Your task to perform on an android device: uninstall "Nova Launcher" Image 0: 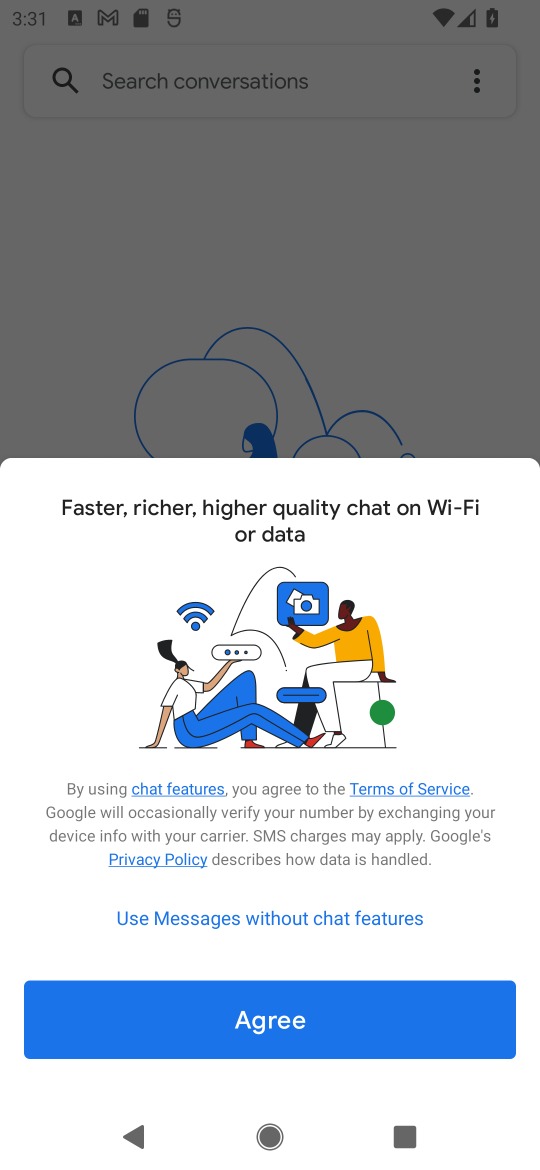
Step 0: press home button
Your task to perform on an android device: uninstall "Nova Launcher" Image 1: 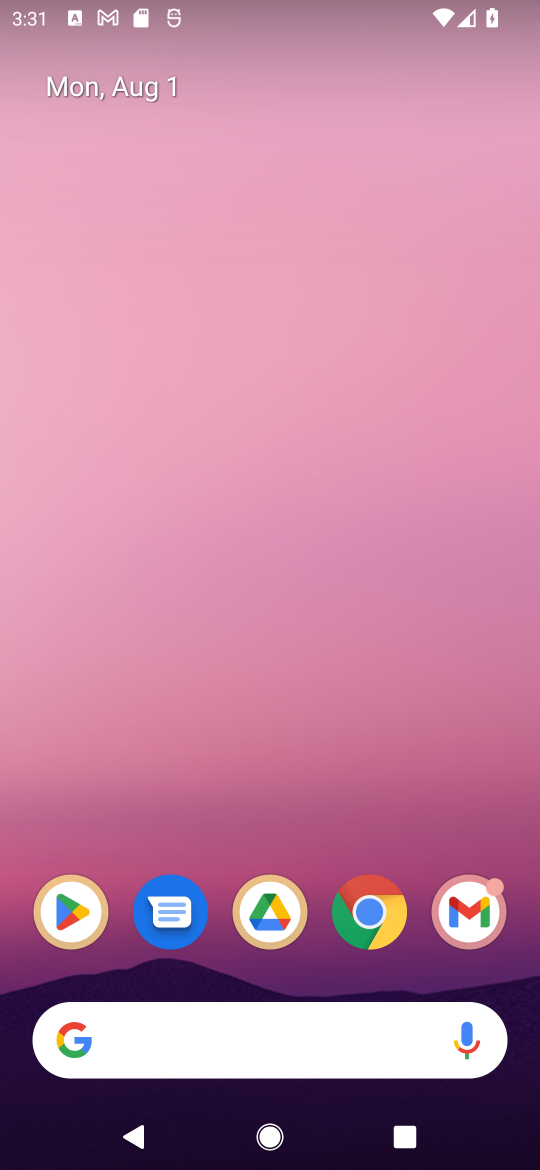
Step 1: click (62, 917)
Your task to perform on an android device: uninstall "Nova Launcher" Image 2: 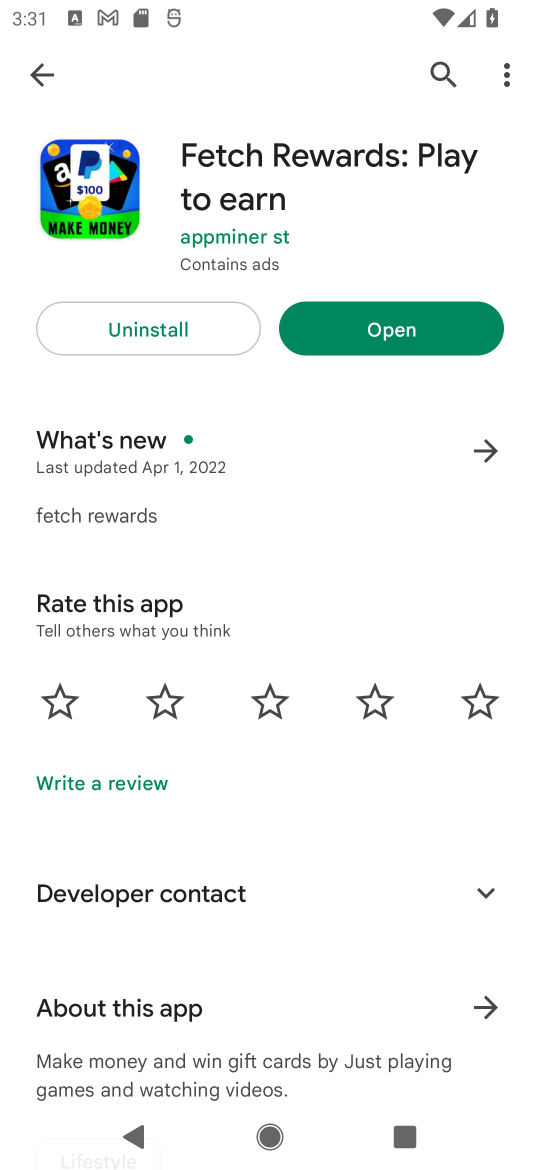
Step 2: click (445, 59)
Your task to perform on an android device: uninstall "Nova Launcher" Image 3: 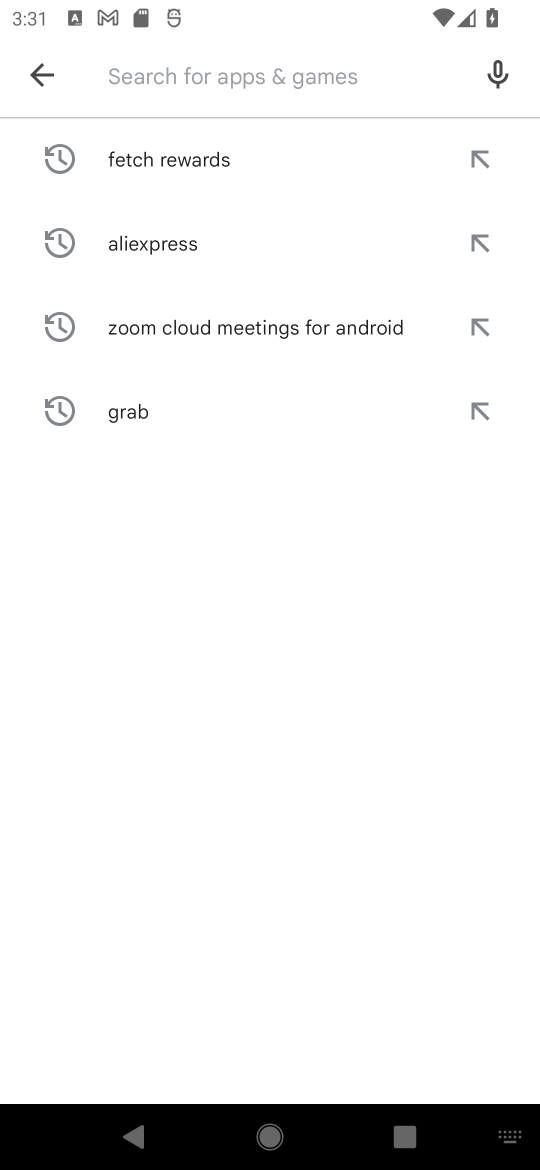
Step 3: type "Nova Launcher"
Your task to perform on an android device: uninstall "Nova Launcher" Image 4: 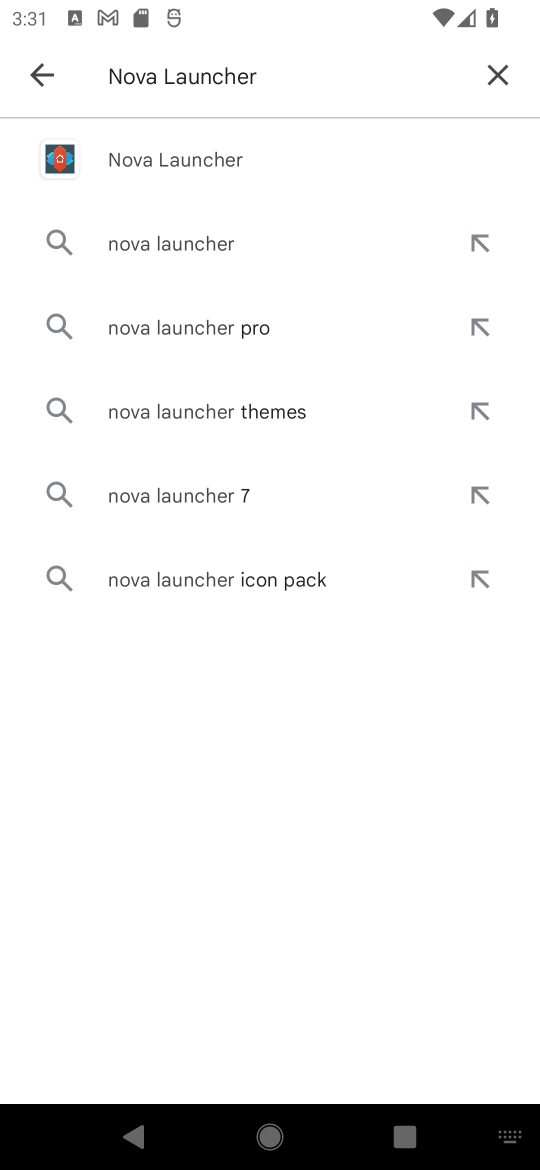
Step 4: click (178, 173)
Your task to perform on an android device: uninstall "Nova Launcher" Image 5: 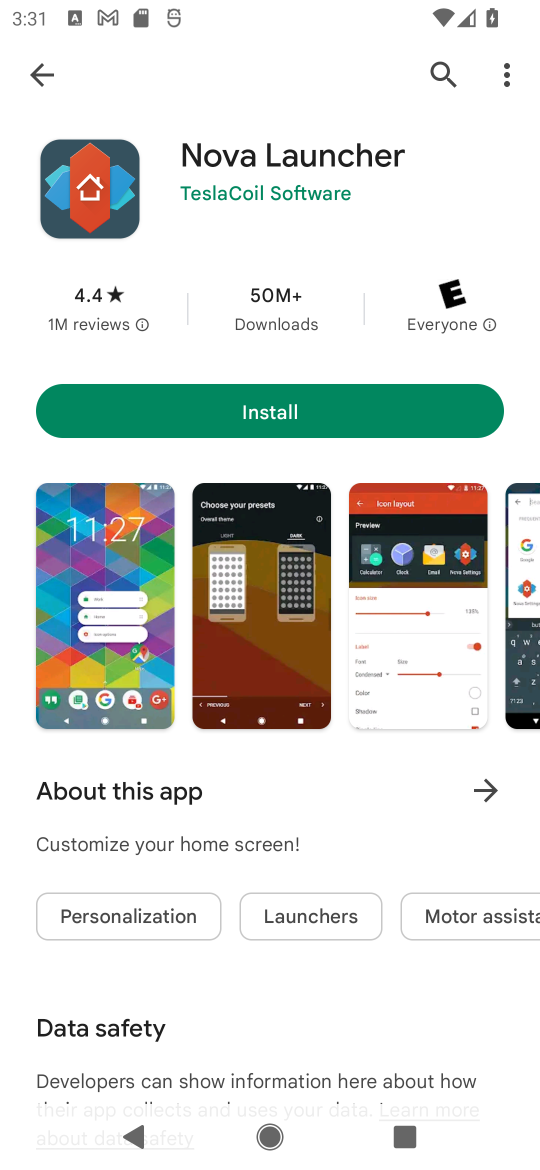
Step 5: task complete